Your task to perform on an android device: Go to network settings Image 0: 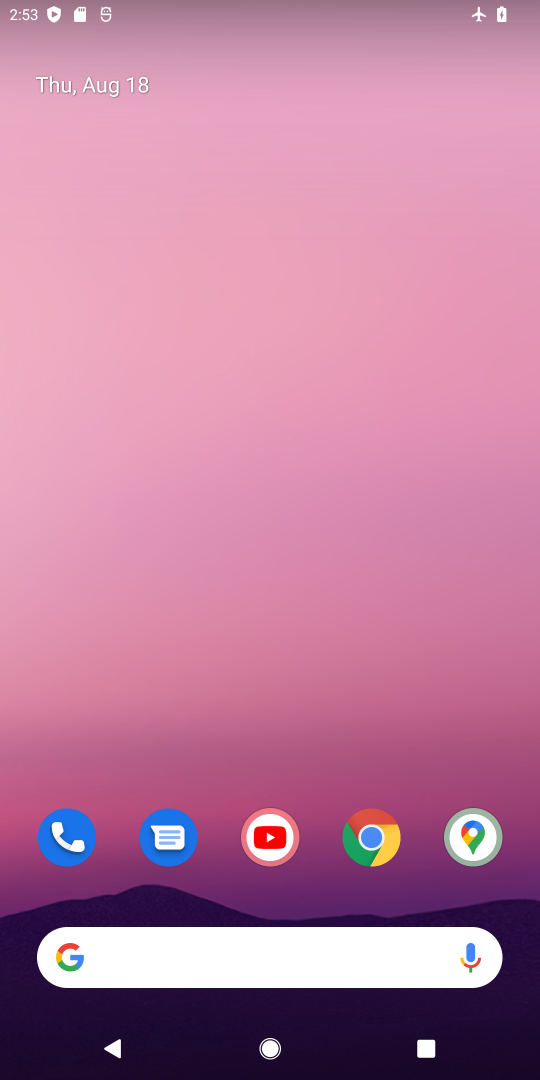
Step 0: drag from (321, 772) to (401, 101)
Your task to perform on an android device: Go to network settings Image 1: 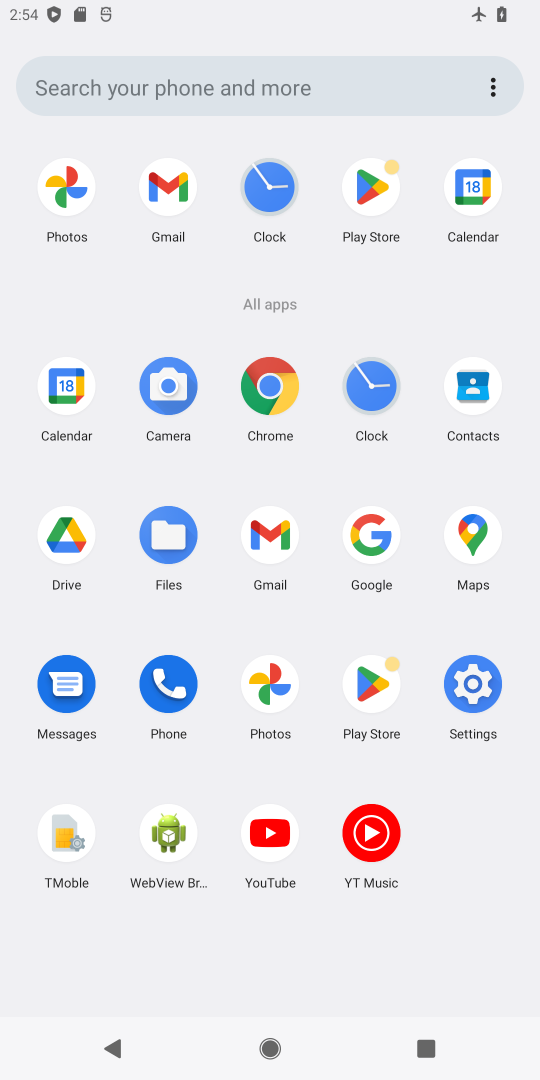
Step 1: click (464, 675)
Your task to perform on an android device: Go to network settings Image 2: 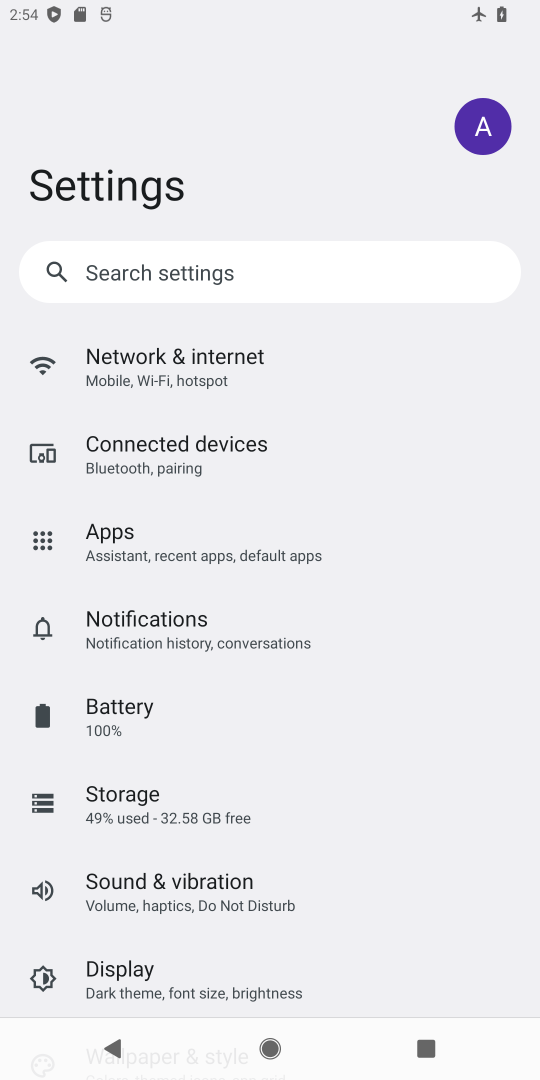
Step 2: click (111, 372)
Your task to perform on an android device: Go to network settings Image 3: 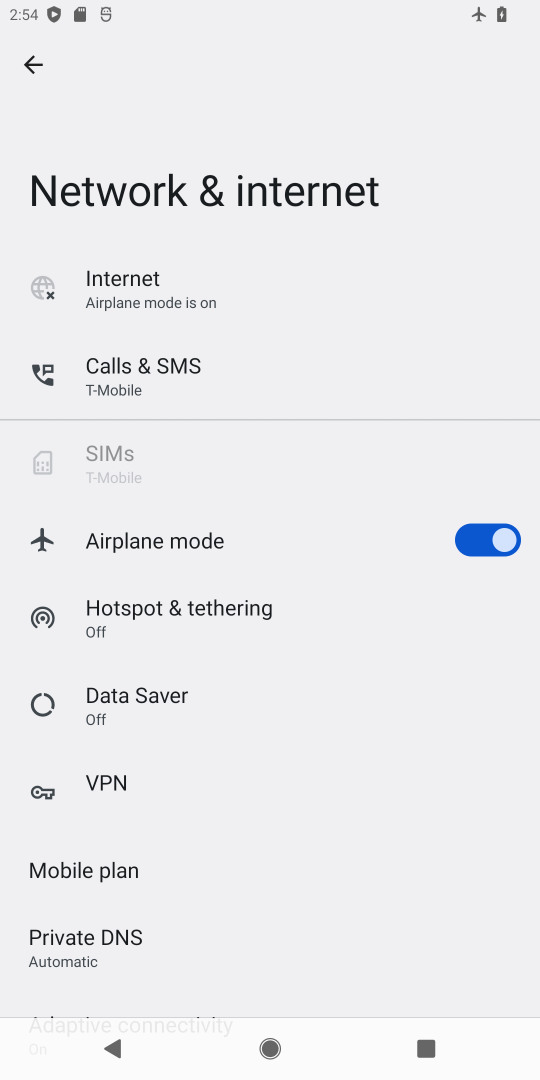
Step 3: task complete